Your task to perform on an android device: open wifi settings Image 0: 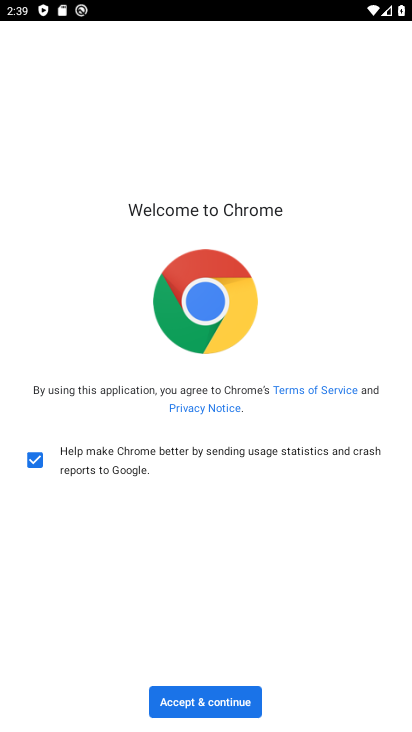
Step 0: press home button
Your task to perform on an android device: open wifi settings Image 1: 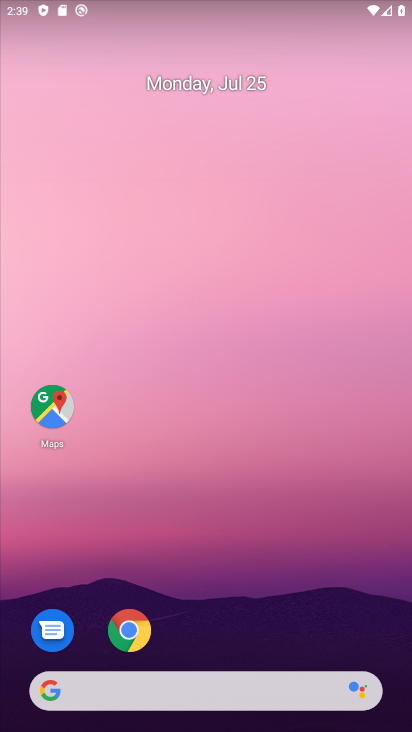
Step 1: drag from (302, 610) to (259, 109)
Your task to perform on an android device: open wifi settings Image 2: 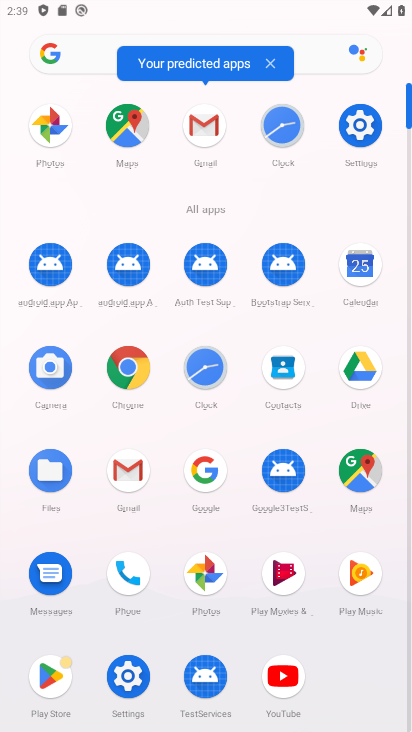
Step 2: click (356, 120)
Your task to perform on an android device: open wifi settings Image 3: 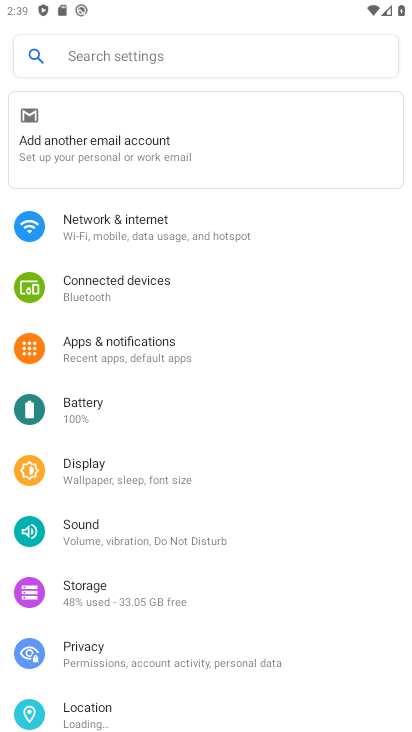
Step 3: click (146, 216)
Your task to perform on an android device: open wifi settings Image 4: 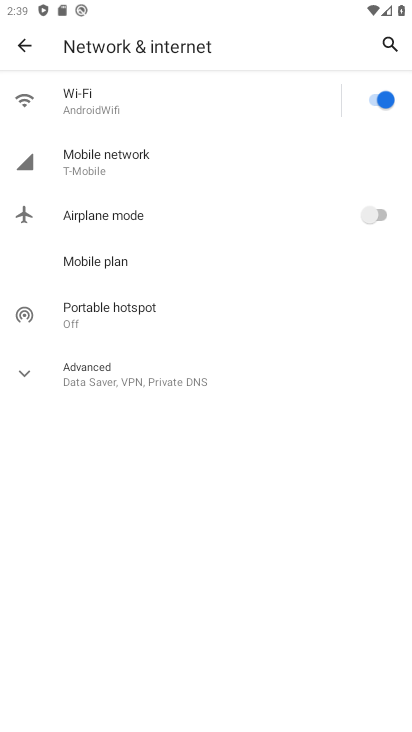
Step 4: click (210, 106)
Your task to perform on an android device: open wifi settings Image 5: 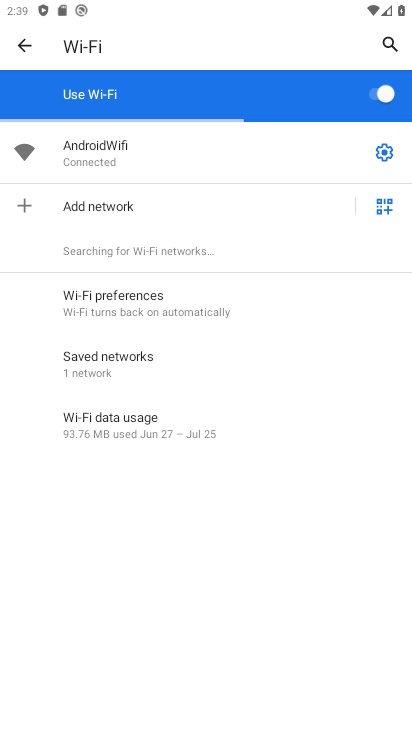
Step 5: click (379, 156)
Your task to perform on an android device: open wifi settings Image 6: 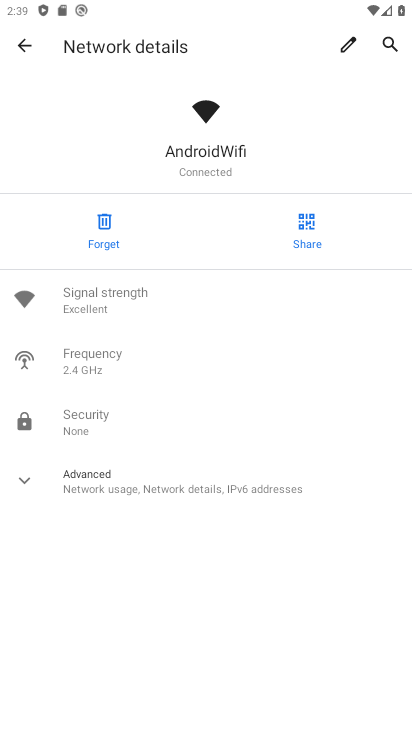
Step 6: task complete